Your task to perform on an android device: See recent photos Image 0: 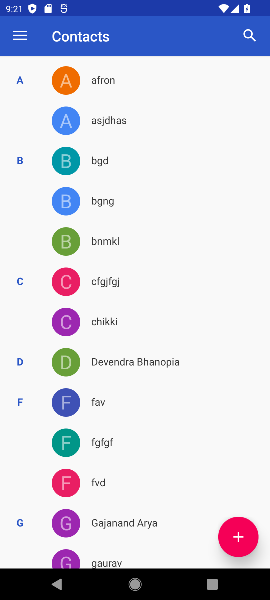
Step 0: press home button
Your task to perform on an android device: See recent photos Image 1: 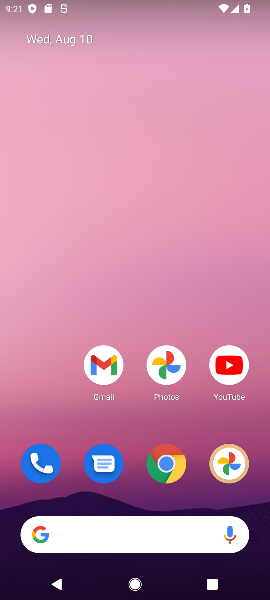
Step 1: click (231, 462)
Your task to perform on an android device: See recent photos Image 2: 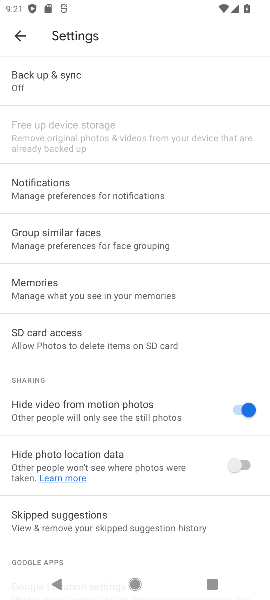
Step 2: press back button
Your task to perform on an android device: See recent photos Image 3: 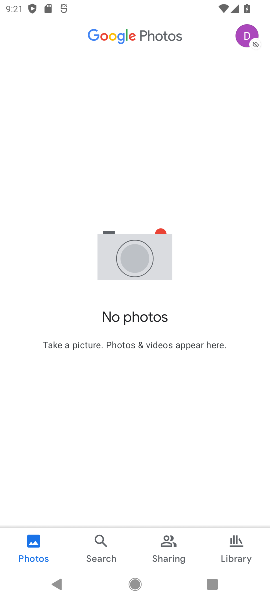
Step 3: press back button
Your task to perform on an android device: See recent photos Image 4: 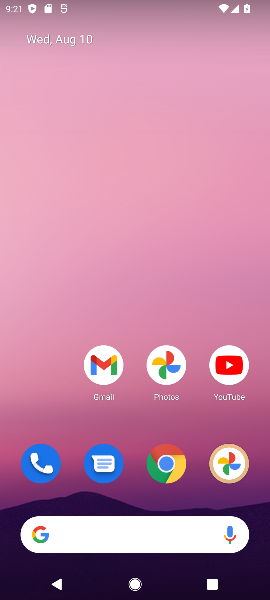
Step 4: click (218, 461)
Your task to perform on an android device: See recent photos Image 5: 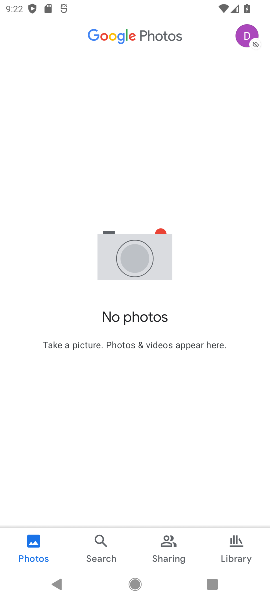
Step 5: task complete